Your task to perform on an android device: Open network settings Image 0: 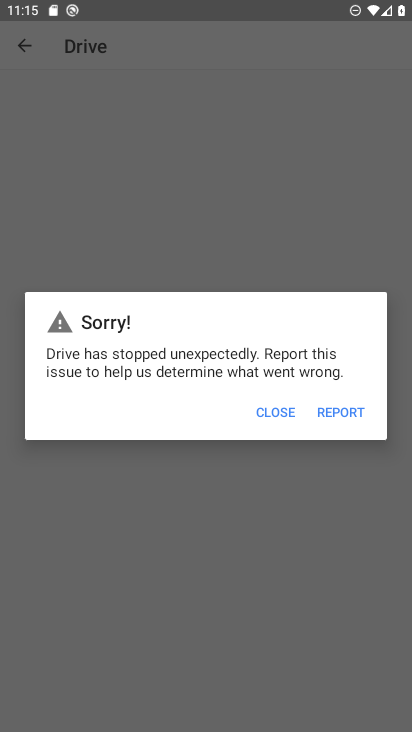
Step 0: press home button
Your task to perform on an android device: Open network settings Image 1: 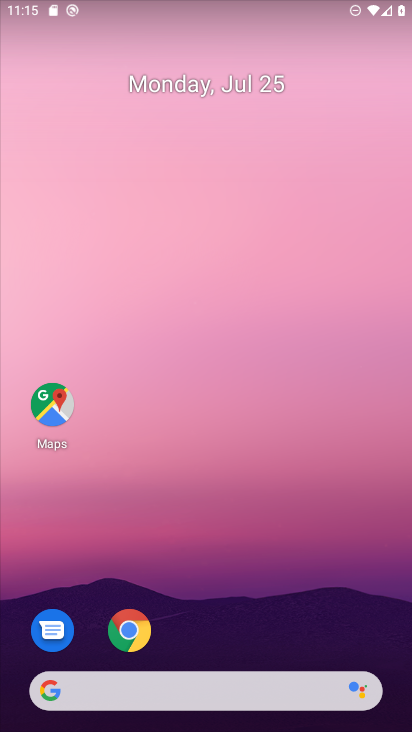
Step 1: drag from (236, 670) to (229, 19)
Your task to perform on an android device: Open network settings Image 2: 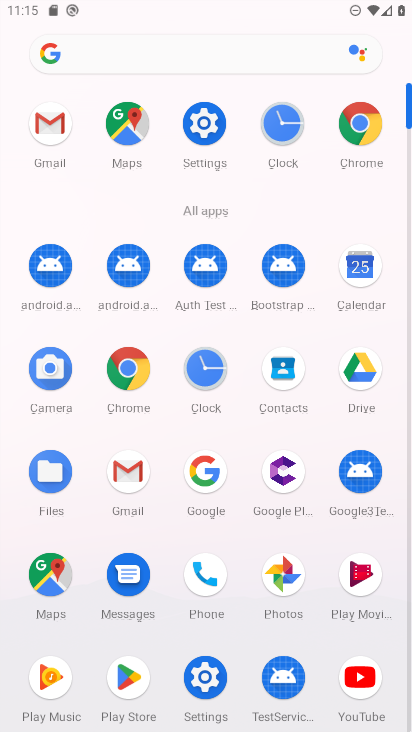
Step 2: click (207, 122)
Your task to perform on an android device: Open network settings Image 3: 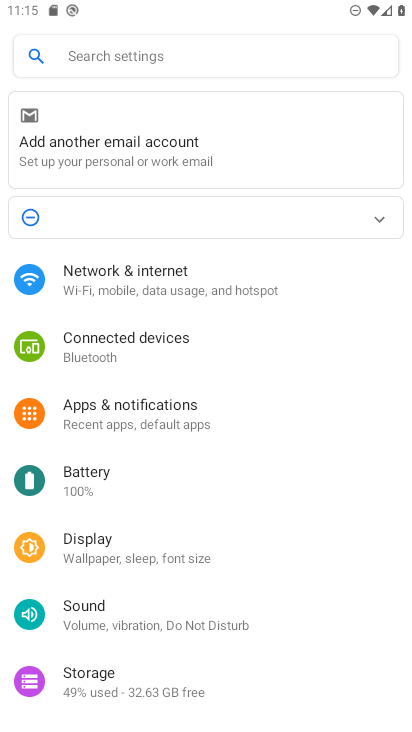
Step 3: click (126, 286)
Your task to perform on an android device: Open network settings Image 4: 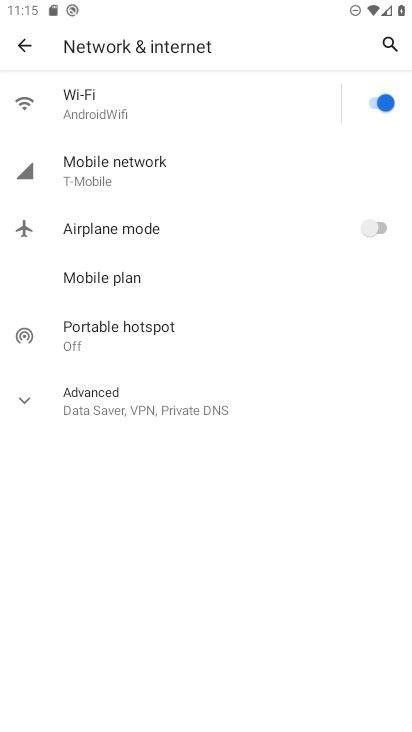
Step 4: click (92, 181)
Your task to perform on an android device: Open network settings Image 5: 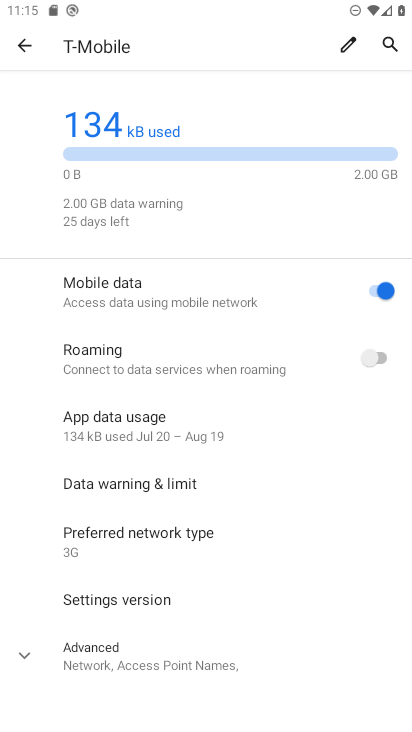
Step 5: drag from (186, 602) to (192, 383)
Your task to perform on an android device: Open network settings Image 6: 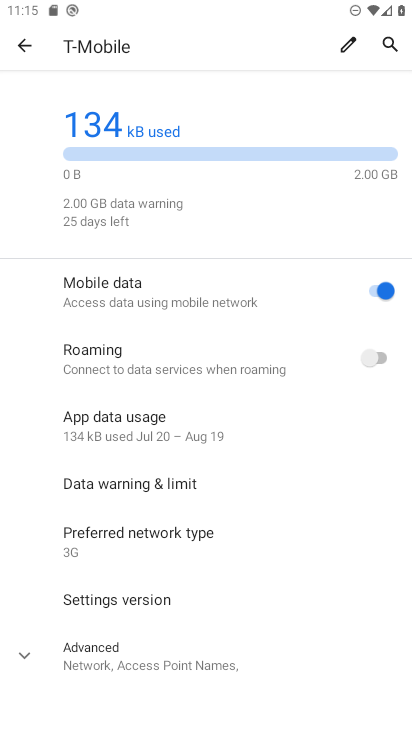
Step 6: click (27, 659)
Your task to perform on an android device: Open network settings Image 7: 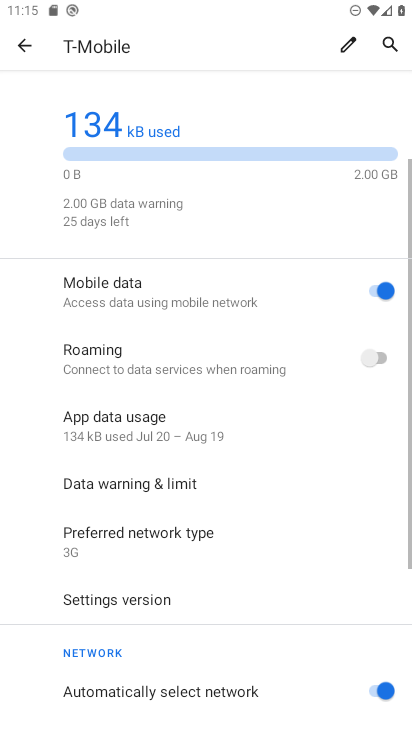
Step 7: task complete